Your task to perform on an android device: Open Google Chrome Image 0: 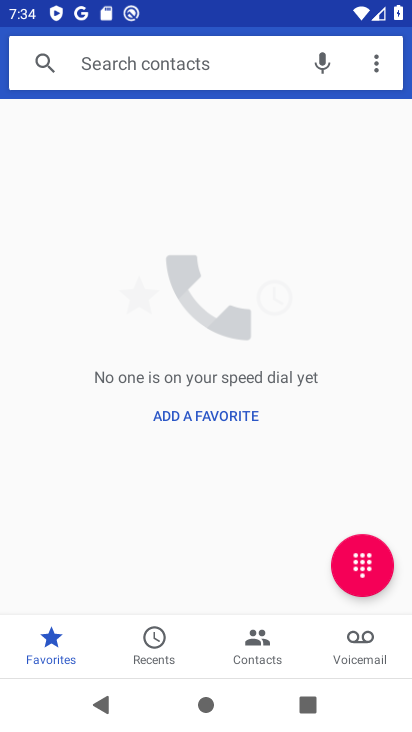
Step 0: press home button
Your task to perform on an android device: Open Google Chrome Image 1: 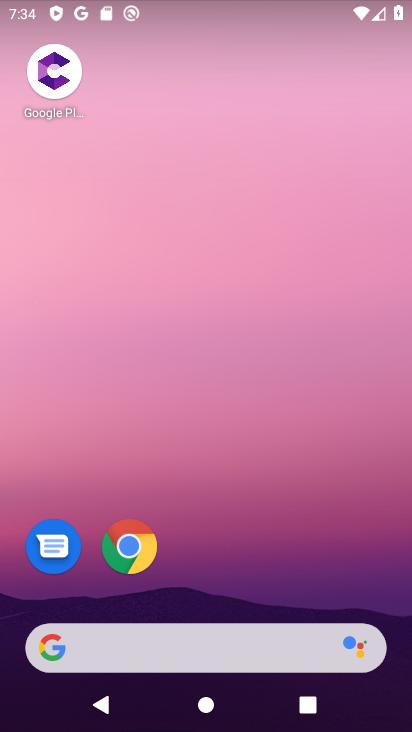
Step 1: click (129, 545)
Your task to perform on an android device: Open Google Chrome Image 2: 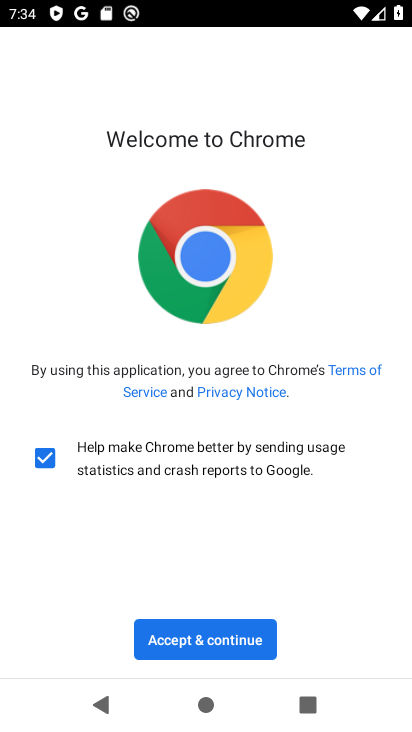
Step 2: click (177, 628)
Your task to perform on an android device: Open Google Chrome Image 3: 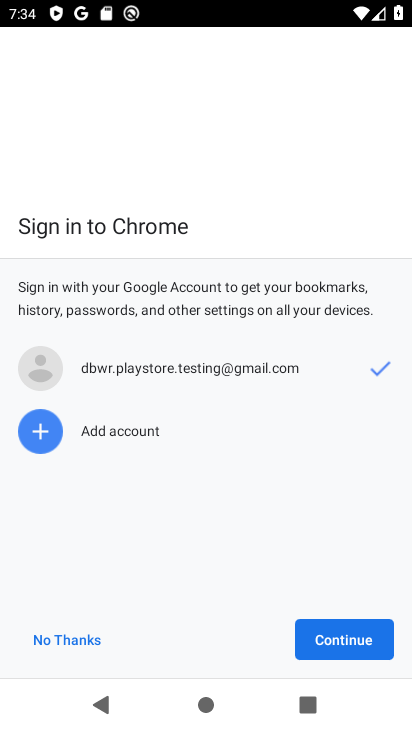
Step 3: click (371, 640)
Your task to perform on an android device: Open Google Chrome Image 4: 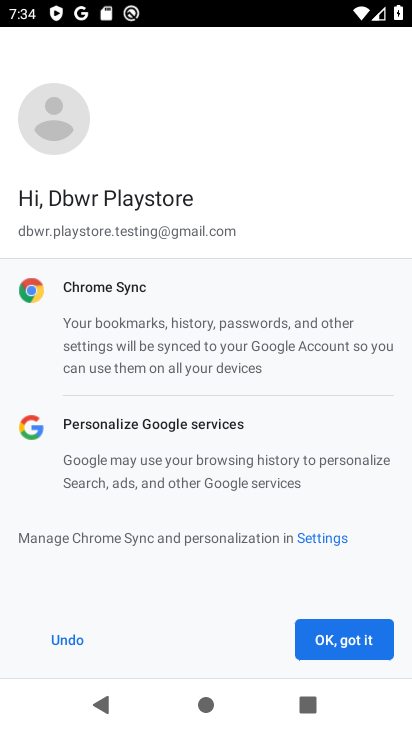
Step 4: click (325, 638)
Your task to perform on an android device: Open Google Chrome Image 5: 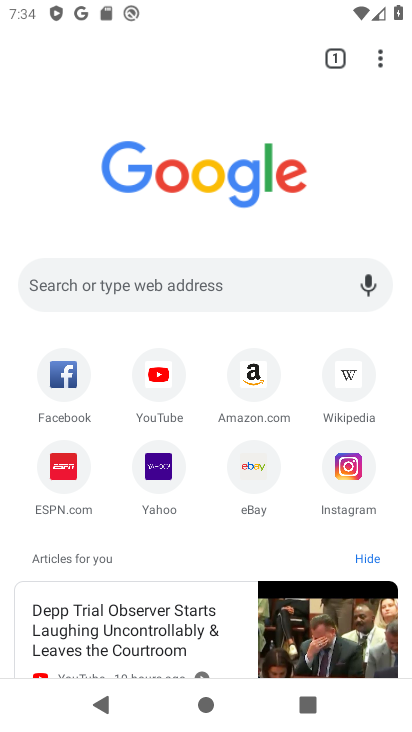
Step 5: task complete